Your task to perform on an android device: turn on the 12-hour format for clock Image 0: 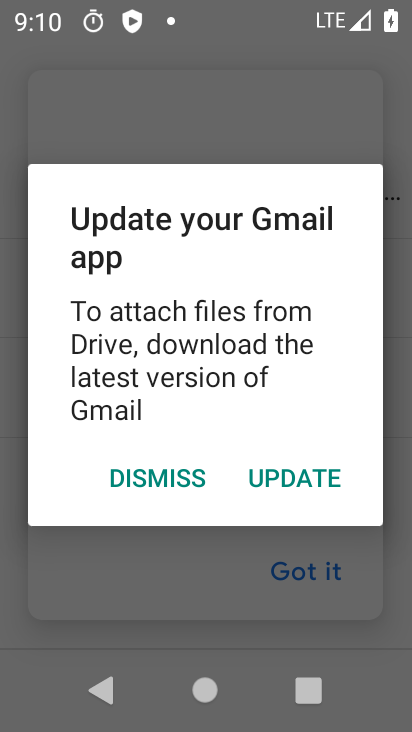
Step 0: click (293, 564)
Your task to perform on an android device: turn on the 12-hour format for clock Image 1: 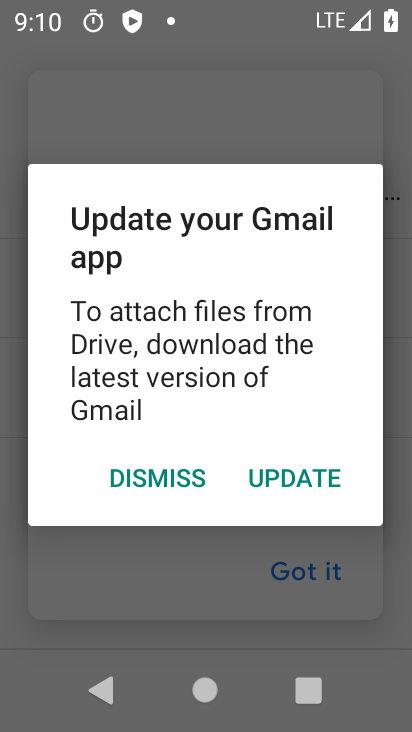
Step 1: press home button
Your task to perform on an android device: turn on the 12-hour format for clock Image 2: 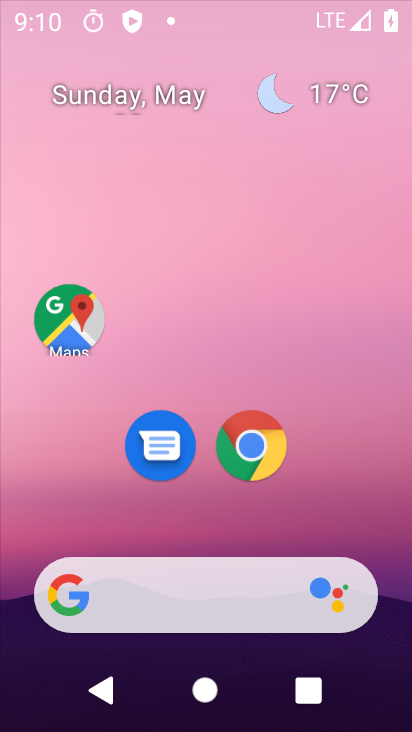
Step 2: drag from (201, 631) to (354, 61)
Your task to perform on an android device: turn on the 12-hour format for clock Image 3: 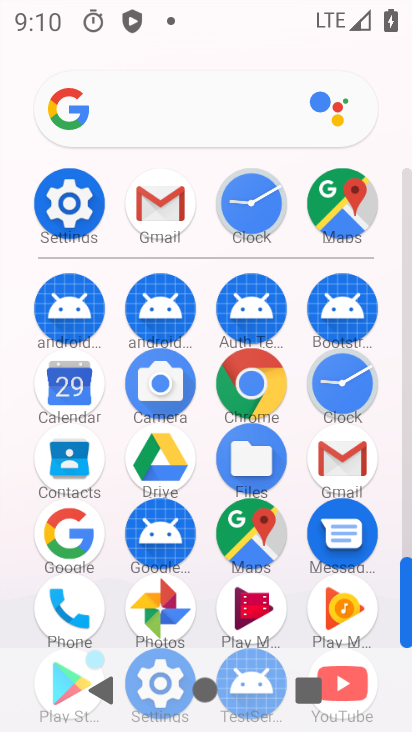
Step 3: click (343, 391)
Your task to perform on an android device: turn on the 12-hour format for clock Image 4: 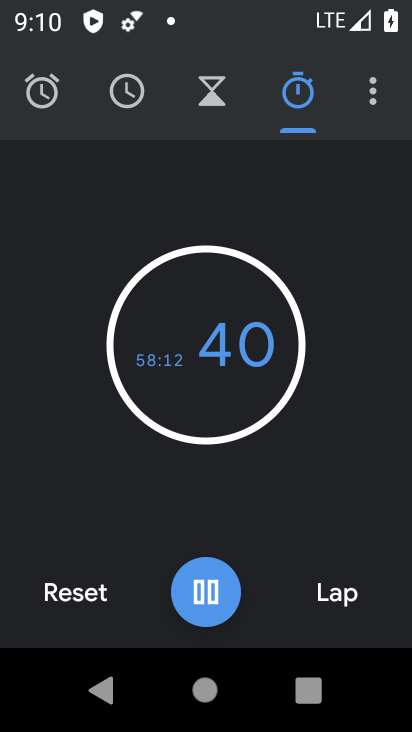
Step 4: click (389, 78)
Your task to perform on an android device: turn on the 12-hour format for clock Image 5: 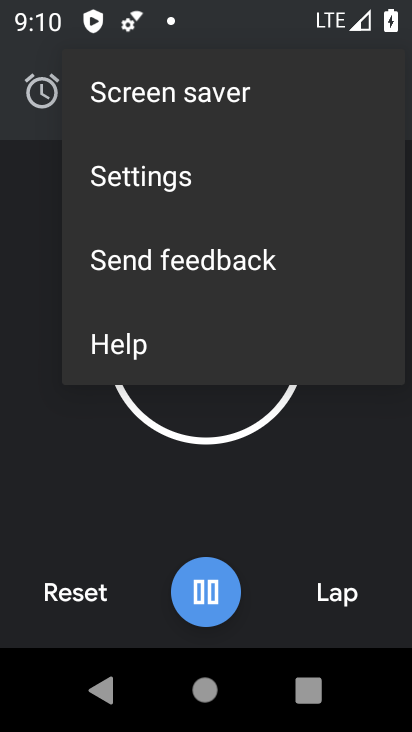
Step 5: click (199, 155)
Your task to perform on an android device: turn on the 12-hour format for clock Image 6: 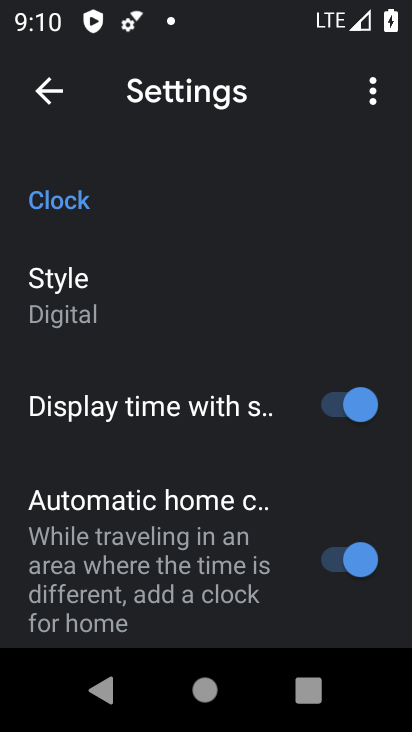
Step 6: drag from (171, 535) to (218, 261)
Your task to perform on an android device: turn on the 12-hour format for clock Image 7: 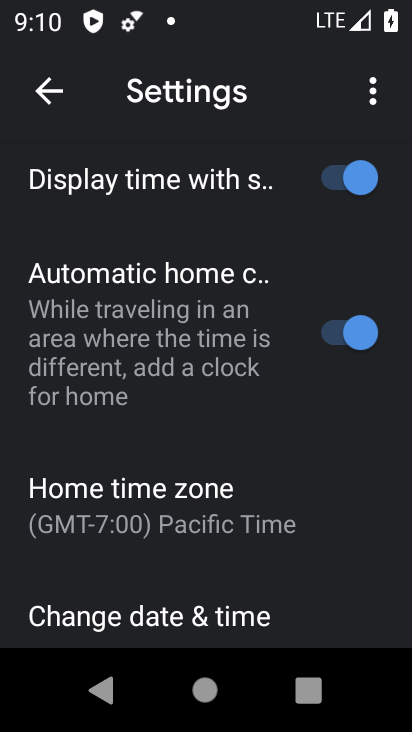
Step 7: drag from (240, 500) to (283, 237)
Your task to perform on an android device: turn on the 12-hour format for clock Image 8: 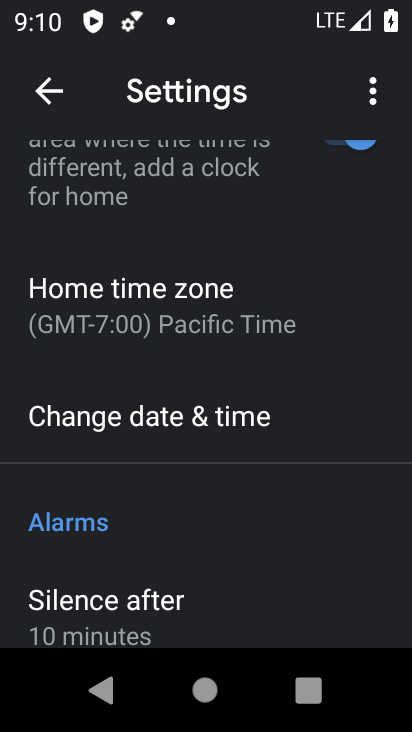
Step 8: click (198, 437)
Your task to perform on an android device: turn on the 12-hour format for clock Image 9: 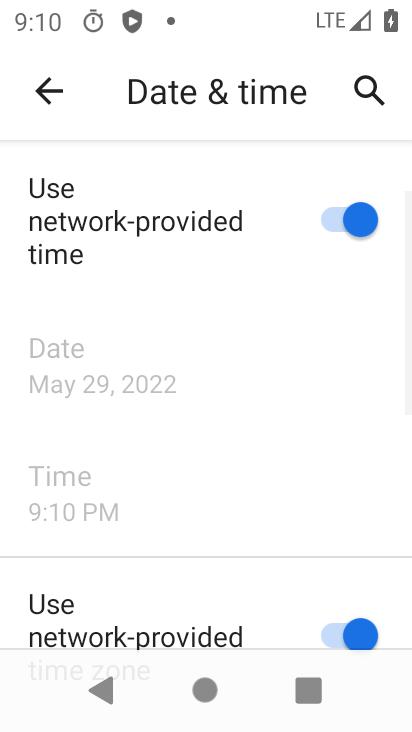
Step 9: task complete